Your task to perform on an android device: open sync settings in chrome Image 0: 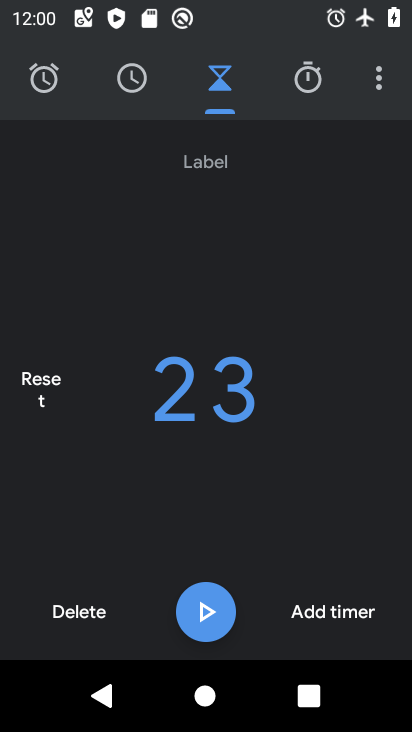
Step 0: press home button
Your task to perform on an android device: open sync settings in chrome Image 1: 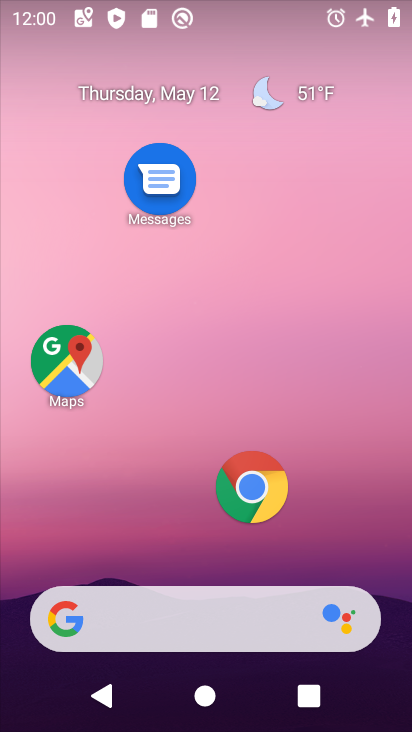
Step 1: click (247, 488)
Your task to perform on an android device: open sync settings in chrome Image 2: 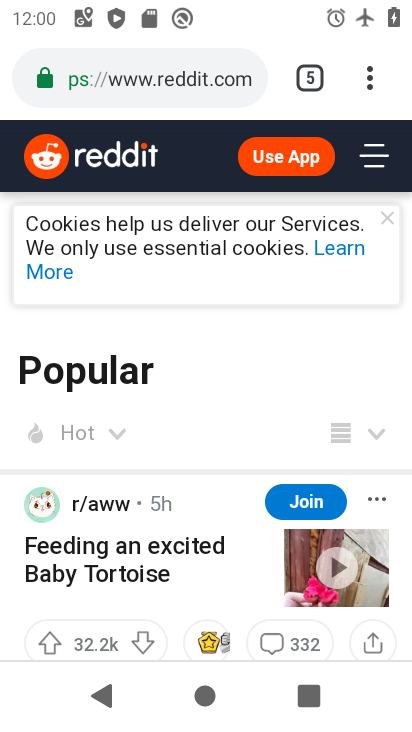
Step 2: drag from (363, 90) to (140, 557)
Your task to perform on an android device: open sync settings in chrome Image 3: 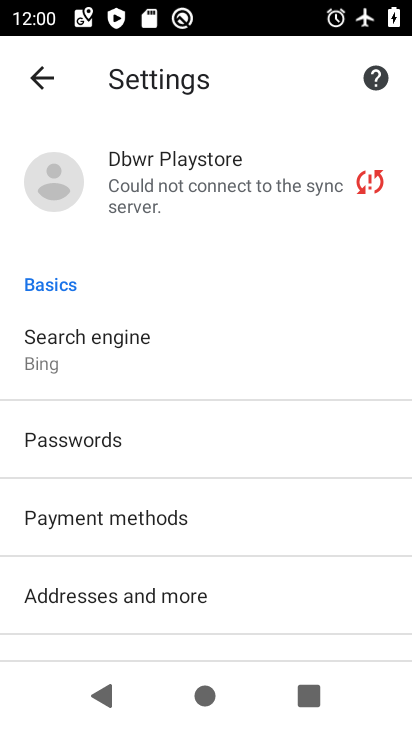
Step 3: click (196, 203)
Your task to perform on an android device: open sync settings in chrome Image 4: 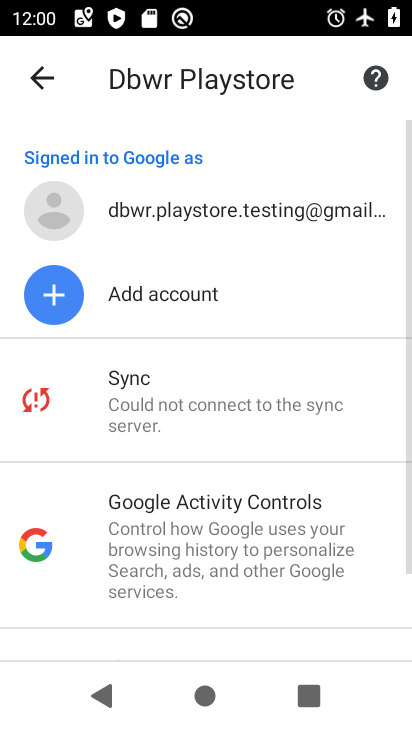
Step 4: click (116, 360)
Your task to perform on an android device: open sync settings in chrome Image 5: 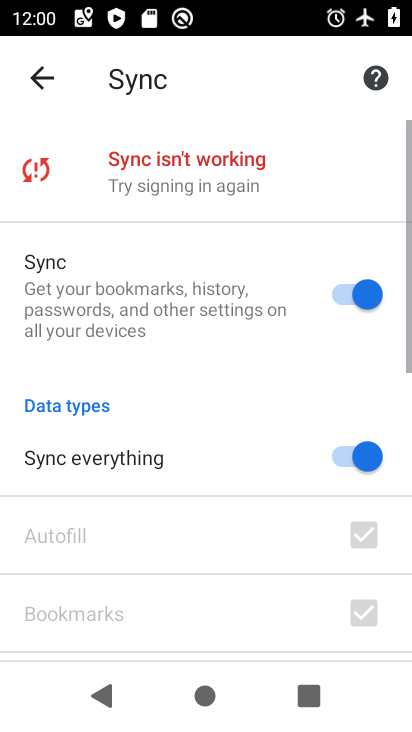
Step 5: task complete